Your task to perform on an android device: show emergency info Image 0: 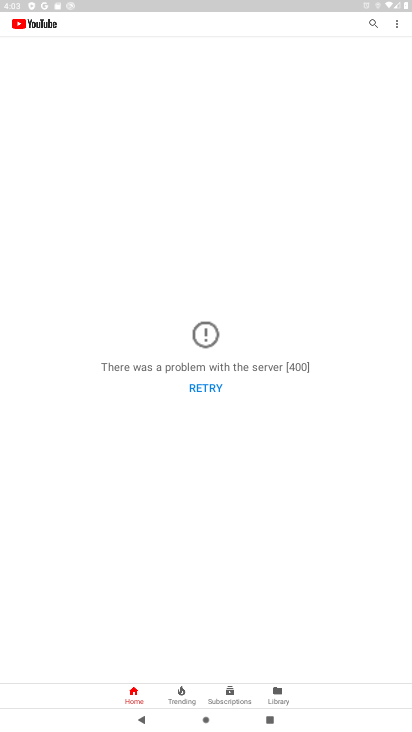
Step 0: press home button
Your task to perform on an android device: show emergency info Image 1: 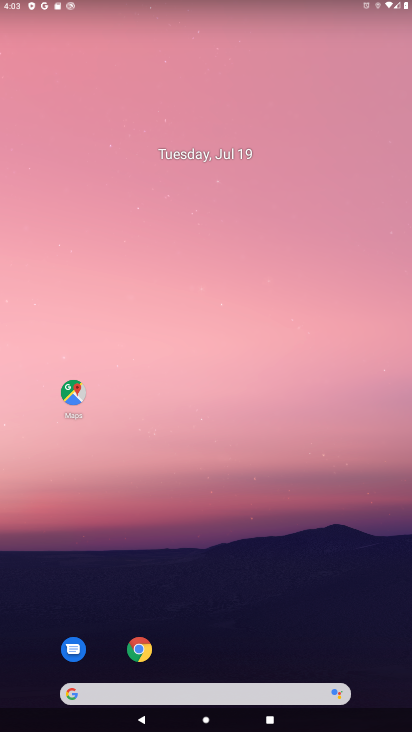
Step 1: drag from (297, 561) to (244, 27)
Your task to perform on an android device: show emergency info Image 2: 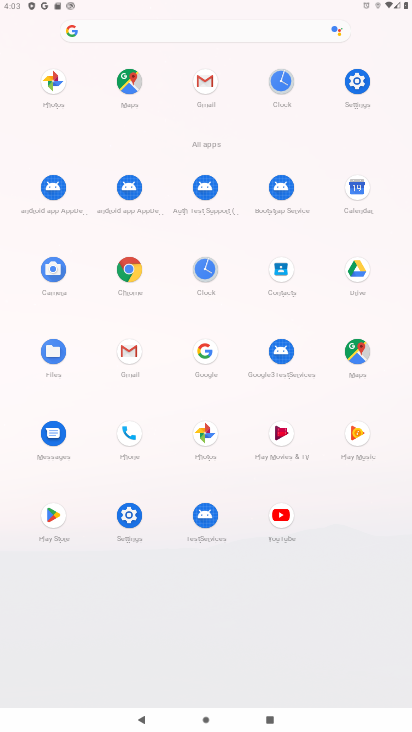
Step 2: click (364, 76)
Your task to perform on an android device: show emergency info Image 3: 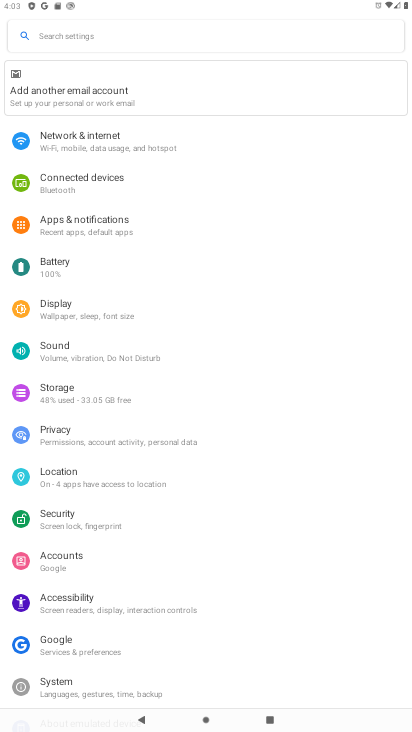
Step 3: drag from (90, 690) to (70, 261)
Your task to perform on an android device: show emergency info Image 4: 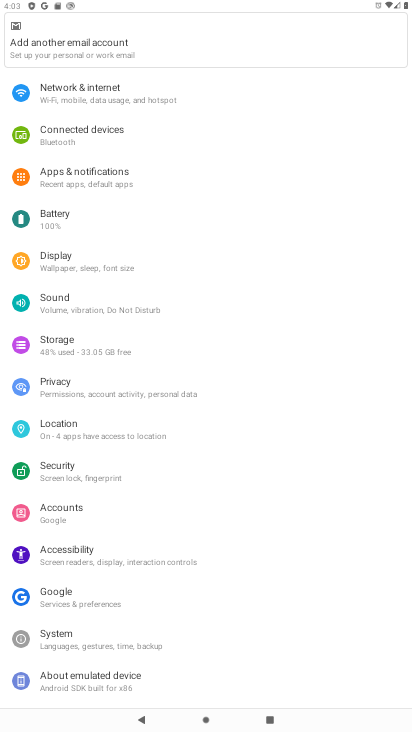
Step 4: click (146, 680)
Your task to perform on an android device: show emergency info Image 5: 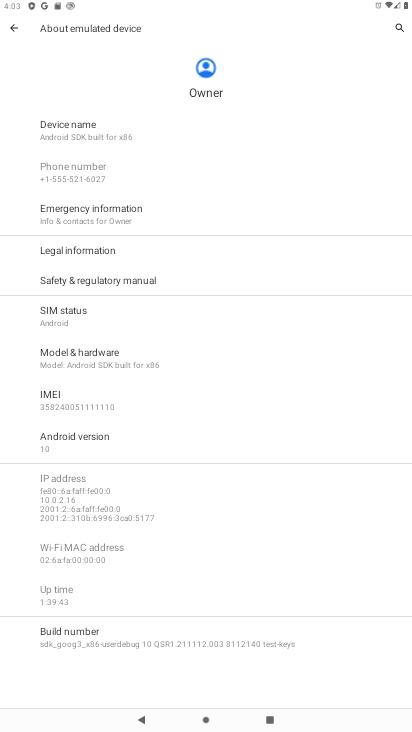
Step 5: click (254, 207)
Your task to perform on an android device: show emergency info Image 6: 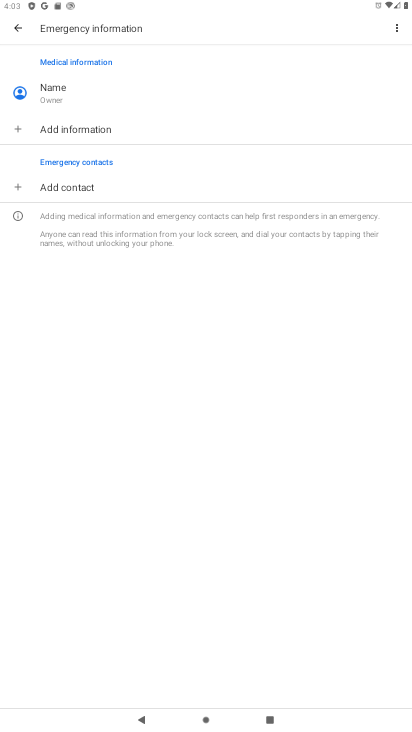
Step 6: task complete